Your task to perform on an android device: Go to wifi settings Image 0: 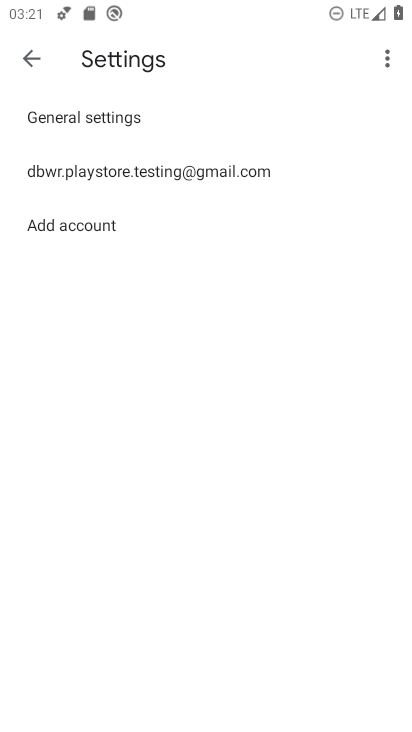
Step 0: press home button
Your task to perform on an android device: Go to wifi settings Image 1: 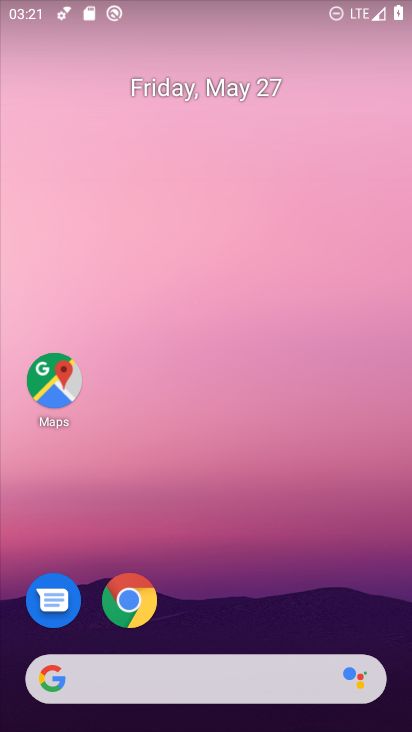
Step 1: drag from (202, 725) to (202, 76)
Your task to perform on an android device: Go to wifi settings Image 2: 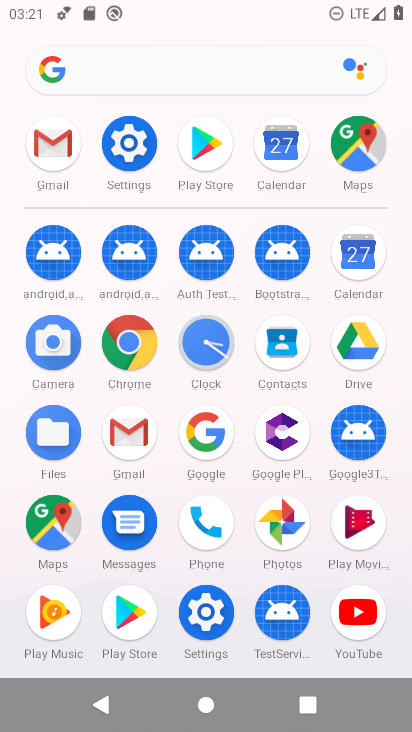
Step 2: click (129, 142)
Your task to perform on an android device: Go to wifi settings Image 3: 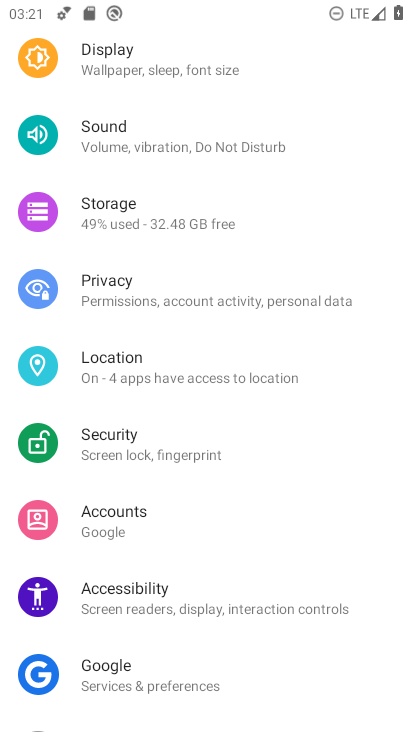
Step 3: drag from (264, 100) to (260, 546)
Your task to perform on an android device: Go to wifi settings Image 4: 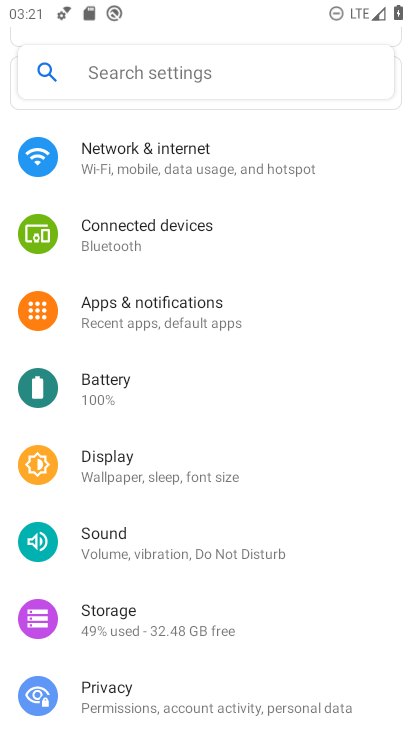
Step 4: drag from (283, 166) to (299, 604)
Your task to perform on an android device: Go to wifi settings Image 5: 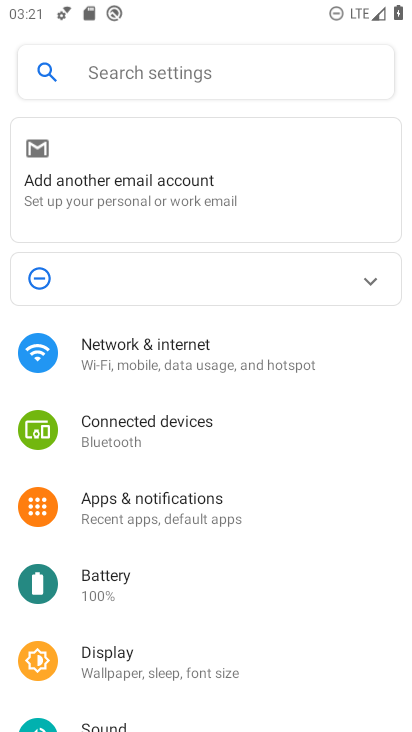
Step 5: click (118, 360)
Your task to perform on an android device: Go to wifi settings Image 6: 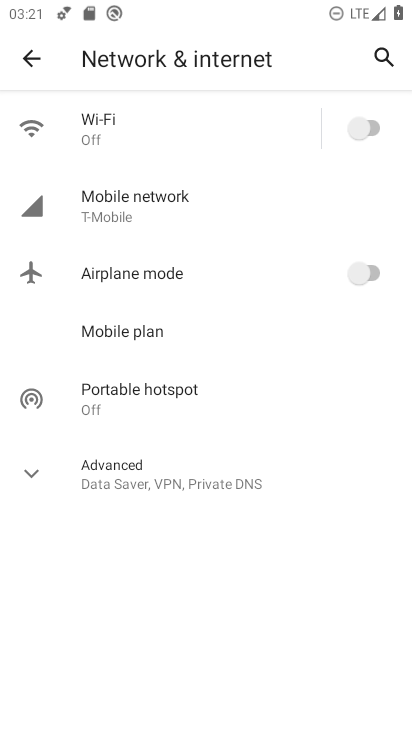
Step 6: click (101, 126)
Your task to perform on an android device: Go to wifi settings Image 7: 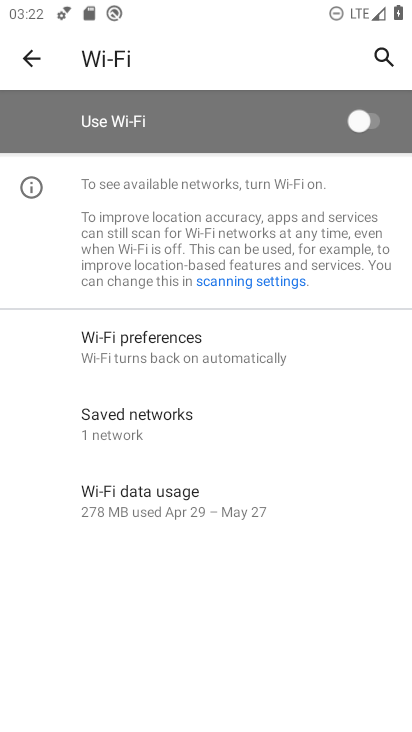
Step 7: task complete